Your task to perform on an android device: Search for seafood restaurants on Google Maps Image 0: 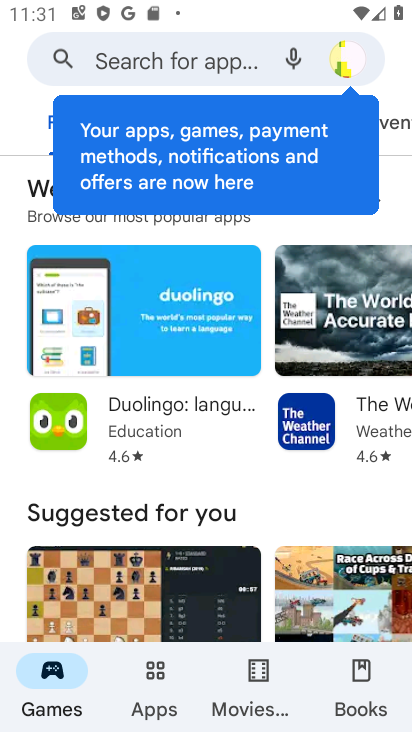
Step 0: press home button
Your task to perform on an android device: Search for seafood restaurants on Google Maps Image 1: 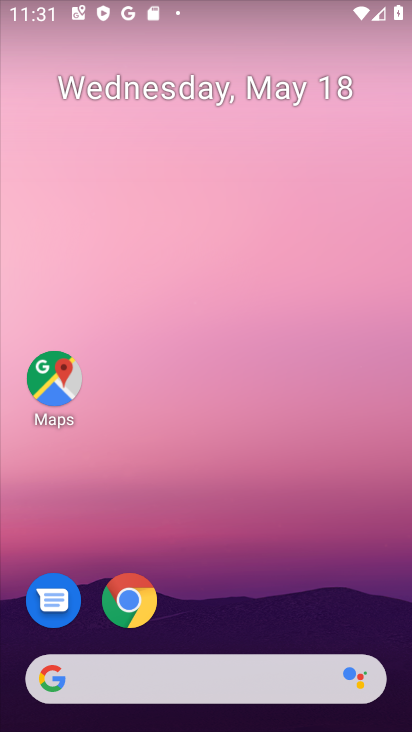
Step 1: click (53, 400)
Your task to perform on an android device: Search for seafood restaurants on Google Maps Image 2: 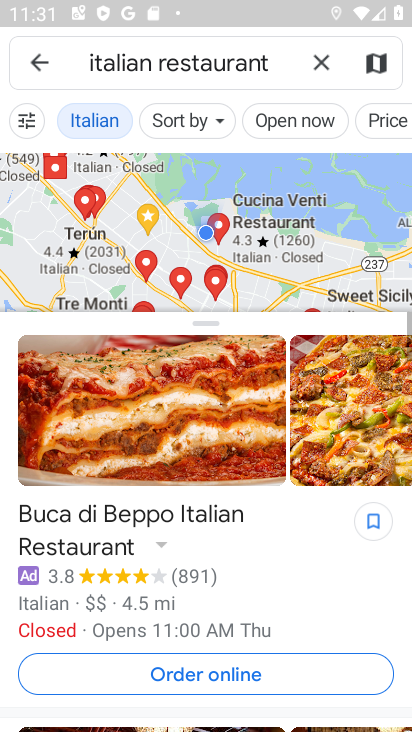
Step 2: click (103, 60)
Your task to perform on an android device: Search for seafood restaurants on Google Maps Image 3: 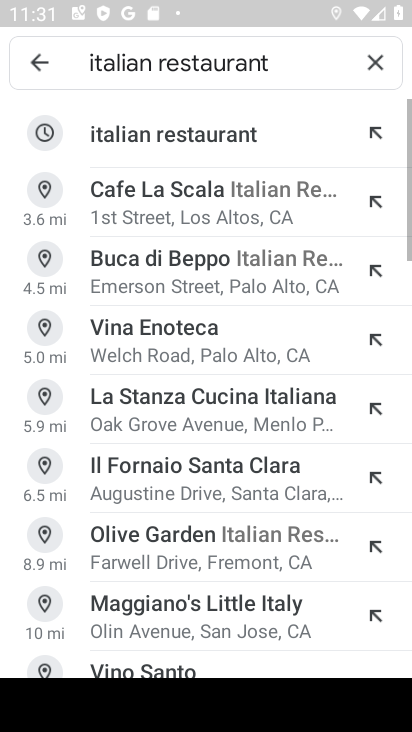
Step 3: click (119, 68)
Your task to perform on an android device: Search for seafood restaurants on Google Maps Image 4: 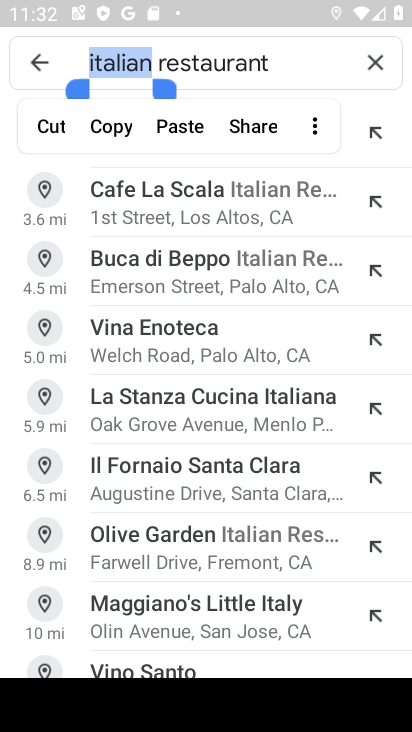
Step 4: type "seafood"
Your task to perform on an android device: Search for seafood restaurants on Google Maps Image 5: 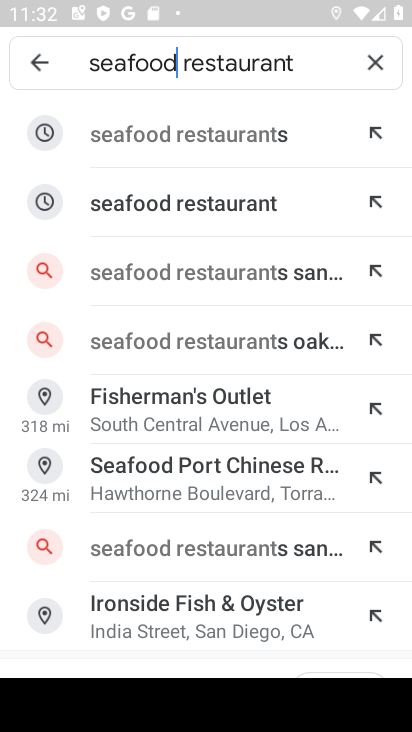
Step 5: click (192, 134)
Your task to perform on an android device: Search for seafood restaurants on Google Maps Image 6: 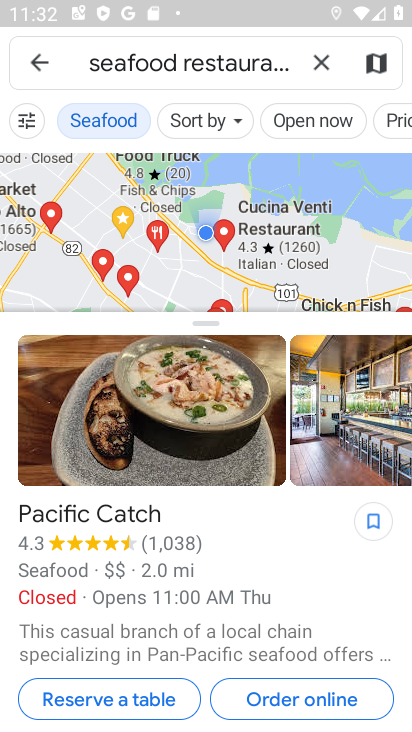
Step 6: task complete